Your task to perform on an android device: Add "energizer triple a" to the cart on target.com, then select checkout. Image 0: 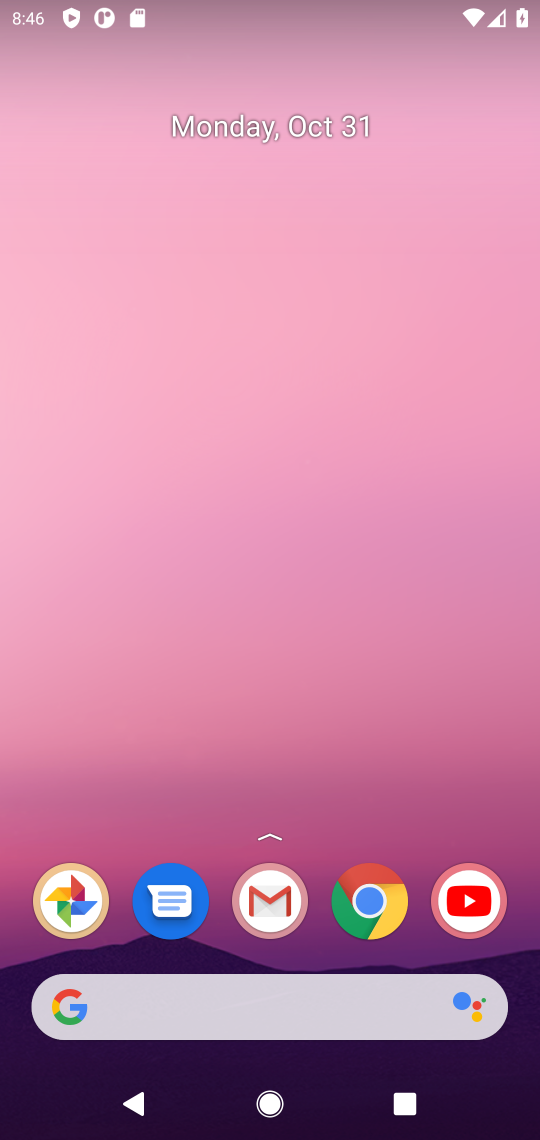
Step 0: drag from (318, 653) to (373, 18)
Your task to perform on an android device: Add "energizer triple a" to the cart on target.com, then select checkout. Image 1: 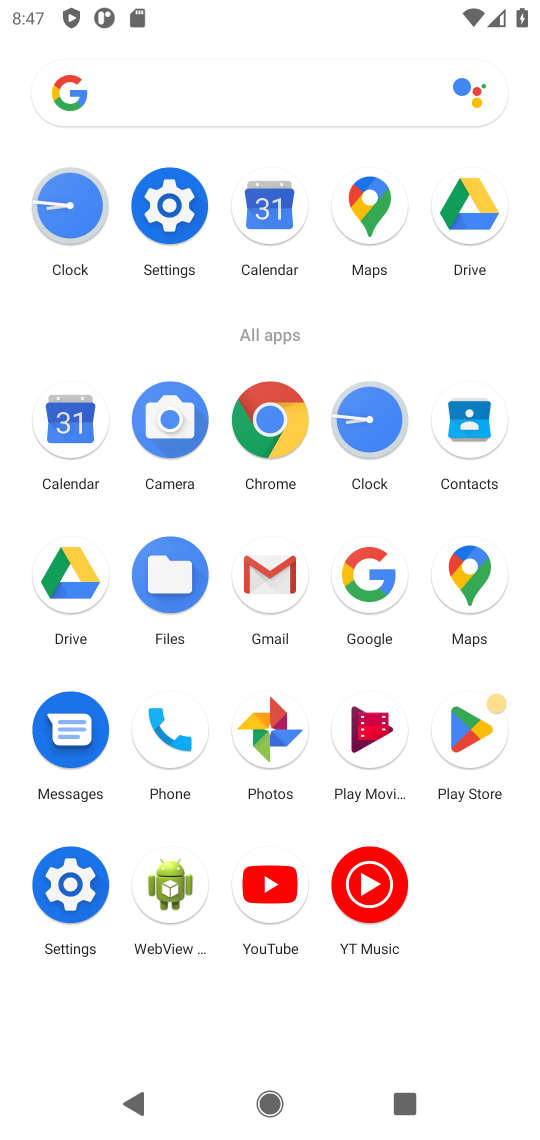
Step 1: click (367, 569)
Your task to perform on an android device: Add "energizer triple a" to the cart on target.com, then select checkout. Image 2: 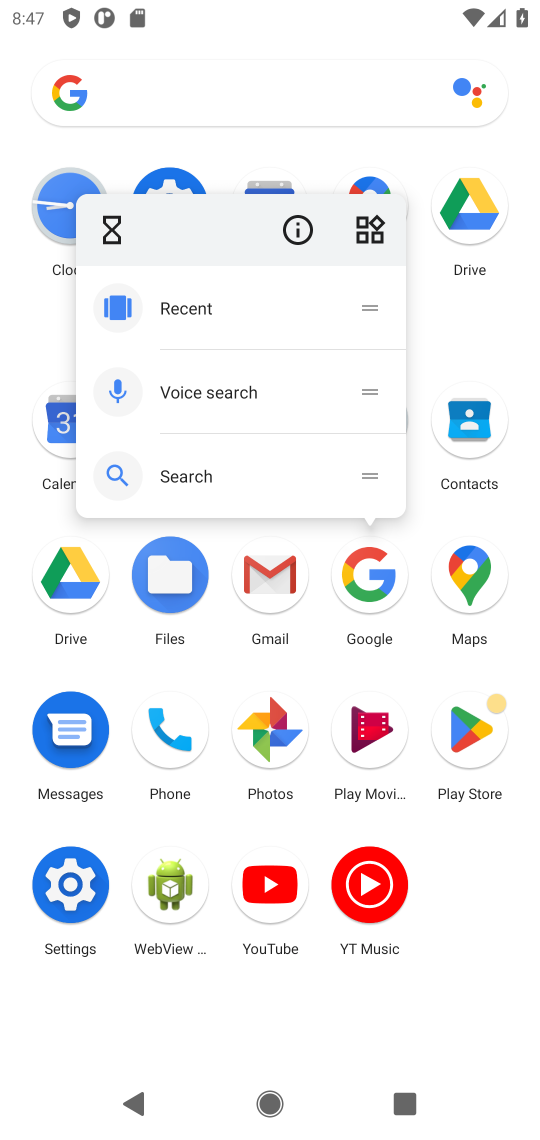
Step 2: click (359, 562)
Your task to perform on an android device: Add "energizer triple a" to the cart on target.com, then select checkout. Image 3: 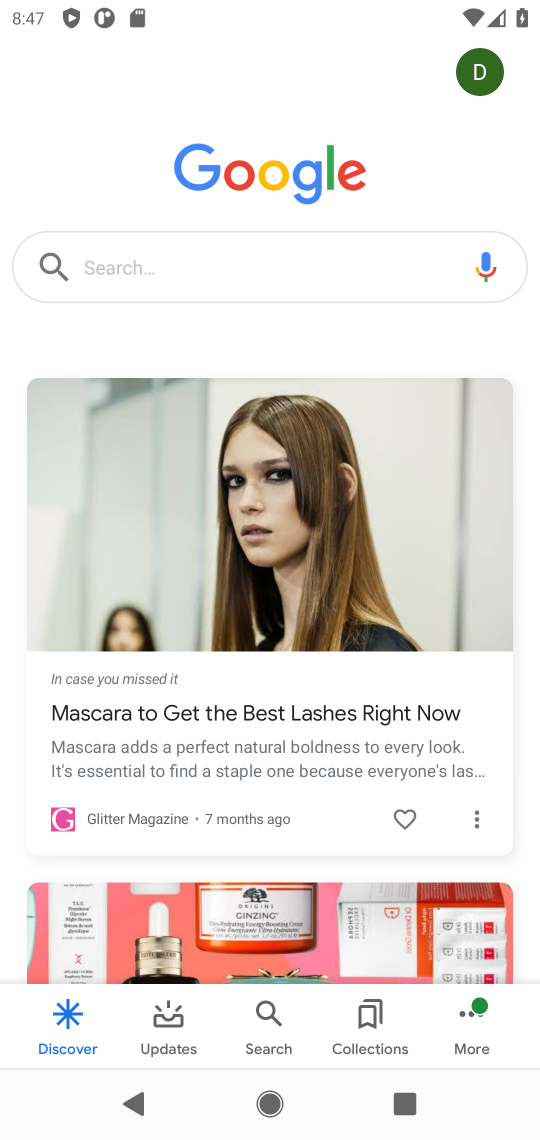
Step 3: click (268, 235)
Your task to perform on an android device: Add "energizer triple a" to the cart on target.com, then select checkout. Image 4: 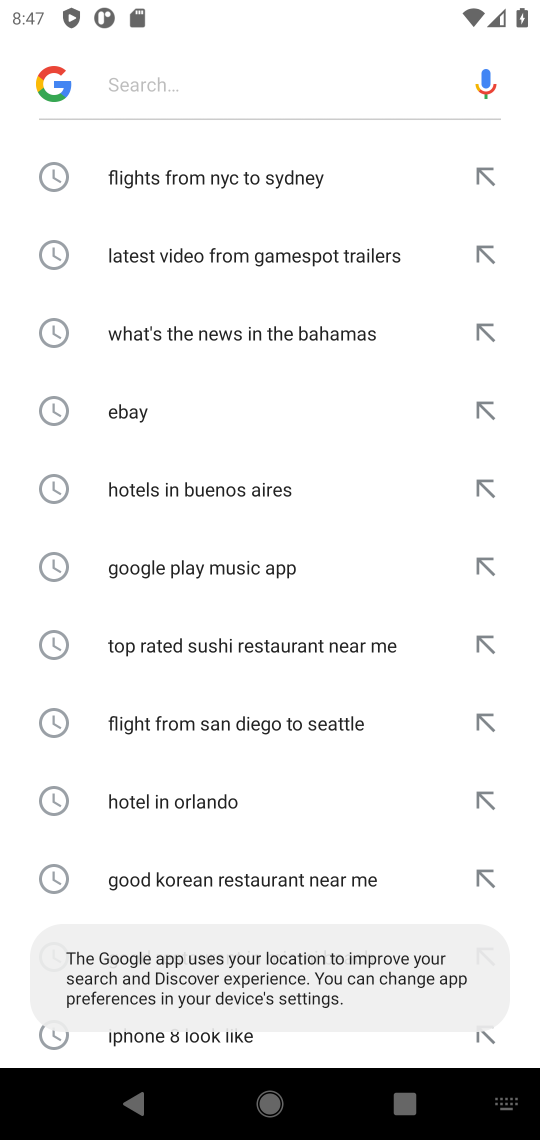
Step 4: type "target "
Your task to perform on an android device: Add "energizer triple a" to the cart on target.com, then select checkout. Image 5: 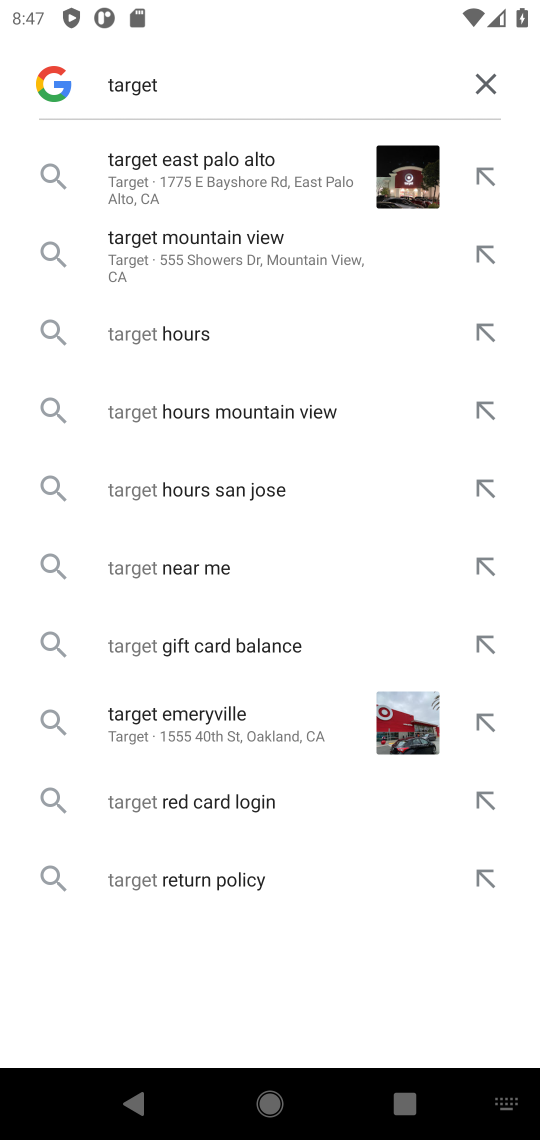
Step 5: click (215, 583)
Your task to perform on an android device: Add "energizer triple a" to the cart on target.com, then select checkout. Image 6: 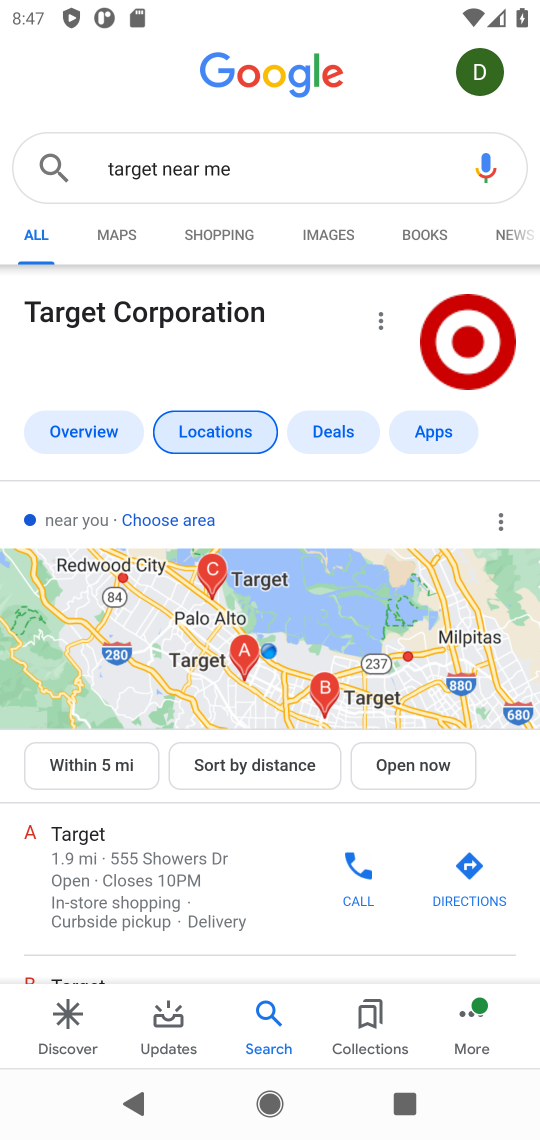
Step 6: drag from (184, 804) to (178, 511)
Your task to perform on an android device: Add "energizer triple a" to the cart on target.com, then select checkout. Image 7: 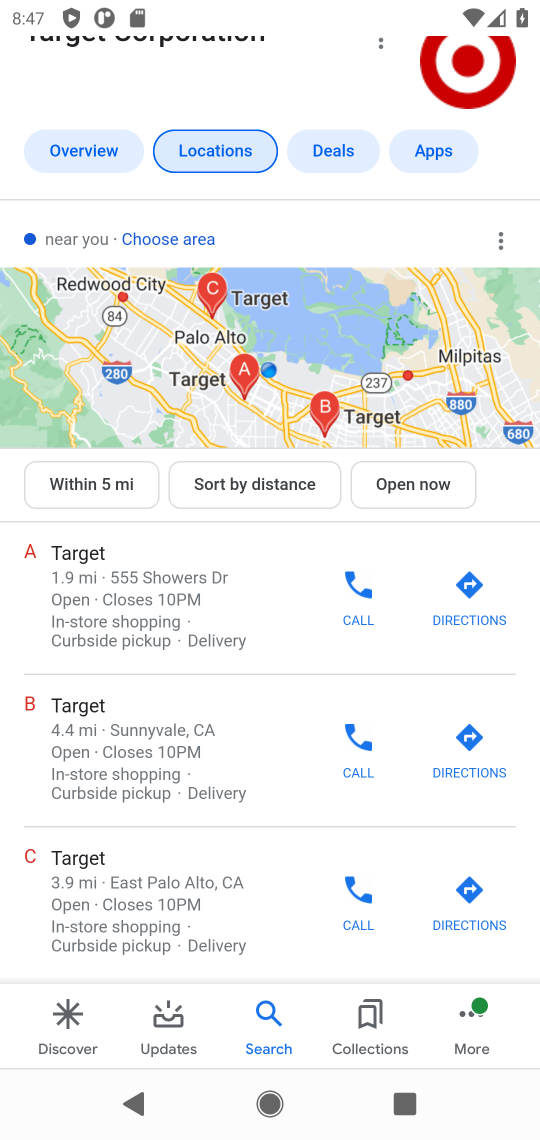
Step 7: drag from (212, 839) to (294, 146)
Your task to perform on an android device: Add "energizer triple a" to the cart on target.com, then select checkout. Image 8: 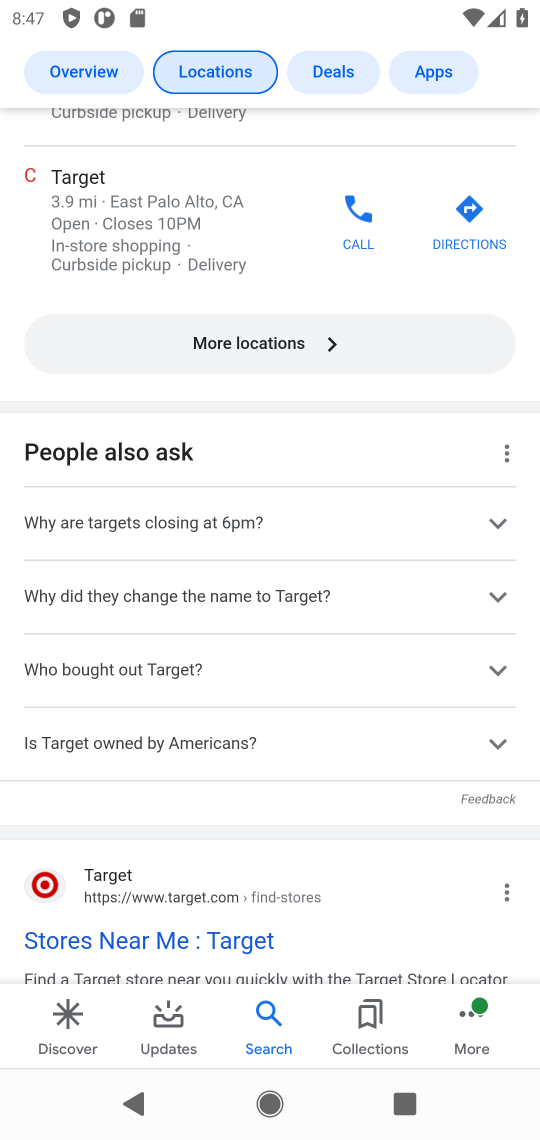
Step 8: drag from (110, 933) to (146, 770)
Your task to perform on an android device: Add "energizer triple a" to the cart on target.com, then select checkout. Image 9: 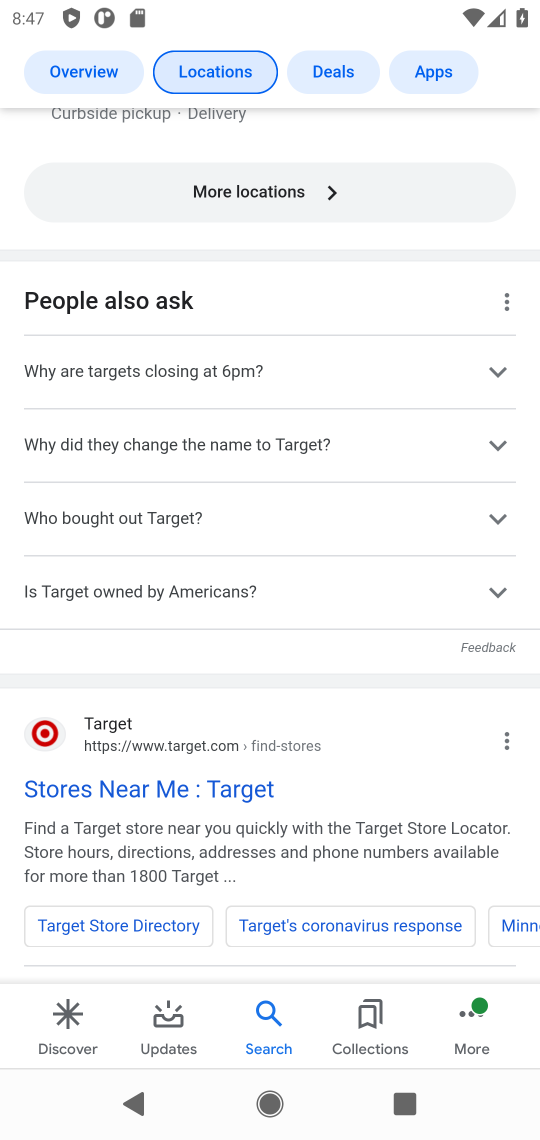
Step 9: click (37, 738)
Your task to perform on an android device: Add "energizer triple a" to the cart on target.com, then select checkout. Image 10: 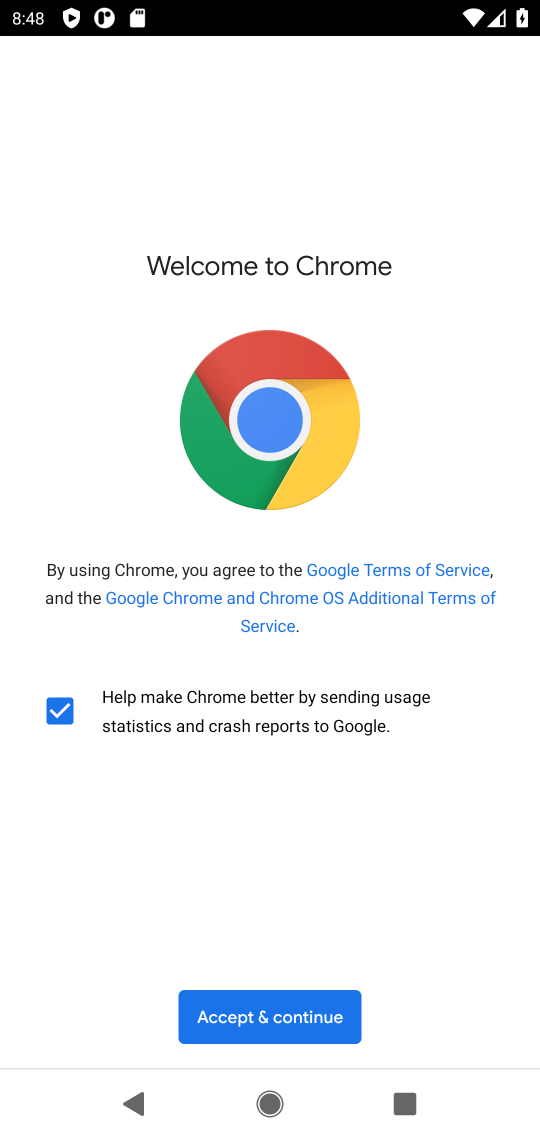
Step 10: click (295, 1029)
Your task to perform on an android device: Add "energizer triple a" to the cart on target.com, then select checkout. Image 11: 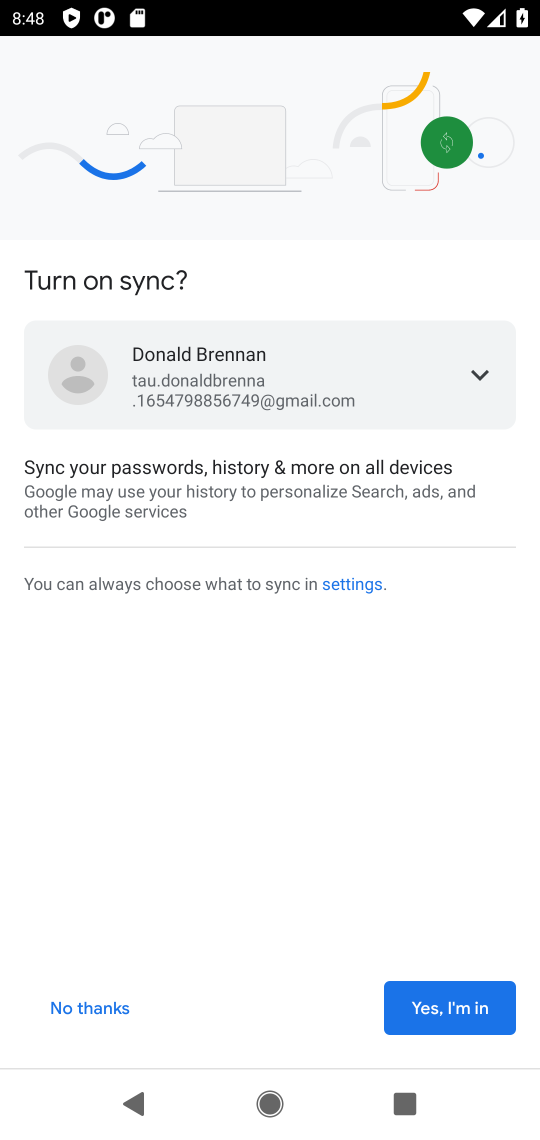
Step 11: click (73, 1005)
Your task to perform on an android device: Add "energizer triple a" to the cart on target.com, then select checkout. Image 12: 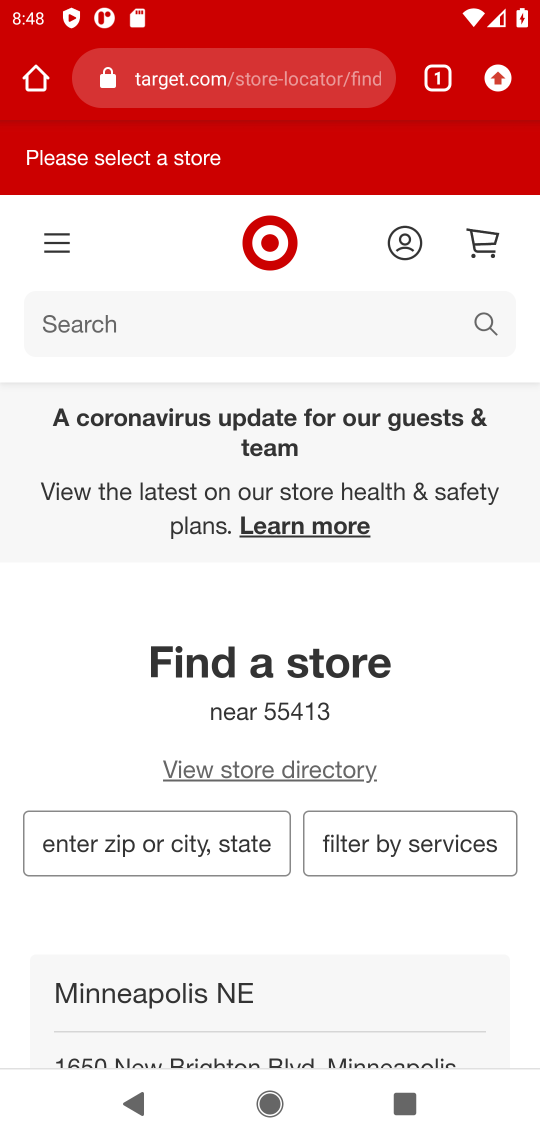
Step 12: click (157, 311)
Your task to perform on an android device: Add "energizer triple a" to the cart on target.com, then select checkout. Image 13: 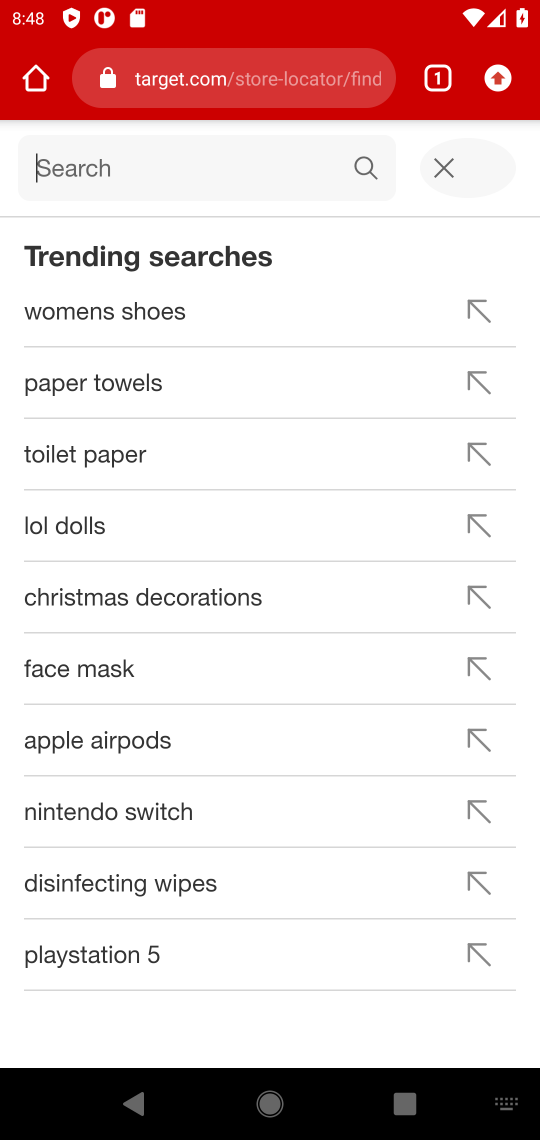
Step 13: type "energizer "
Your task to perform on an android device: Add "energizer triple a" to the cart on target.com, then select checkout. Image 14: 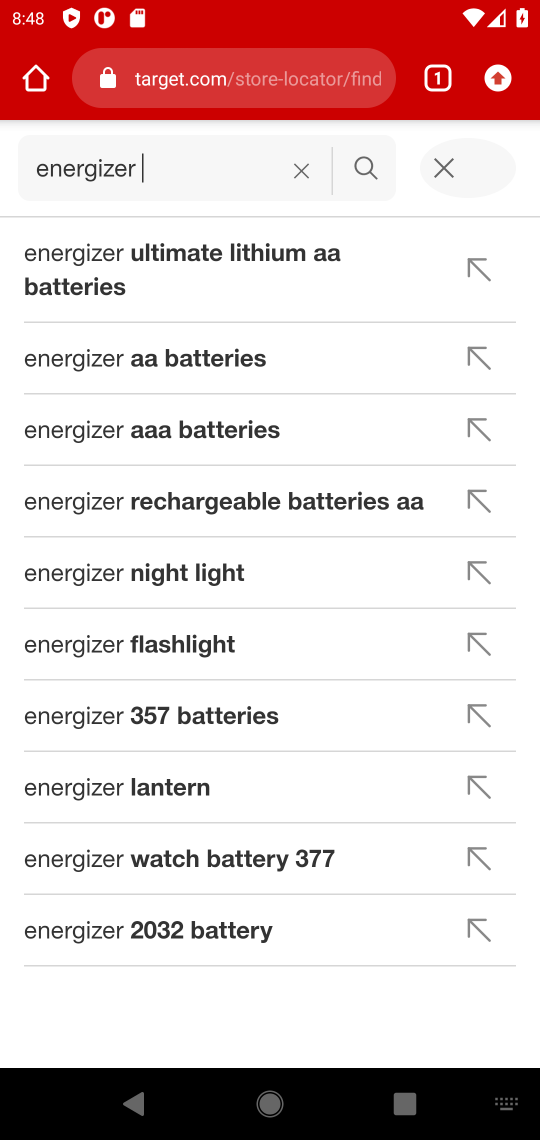
Step 14: click (177, 358)
Your task to perform on an android device: Add "energizer triple a" to the cart on target.com, then select checkout. Image 15: 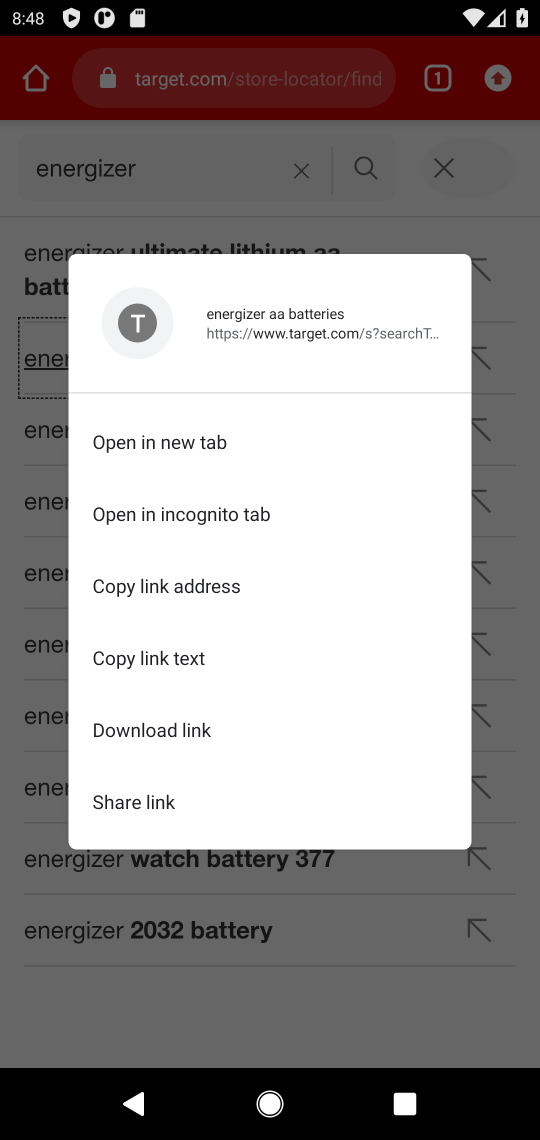
Step 15: click (39, 375)
Your task to perform on an android device: Add "energizer triple a" to the cart on target.com, then select checkout. Image 16: 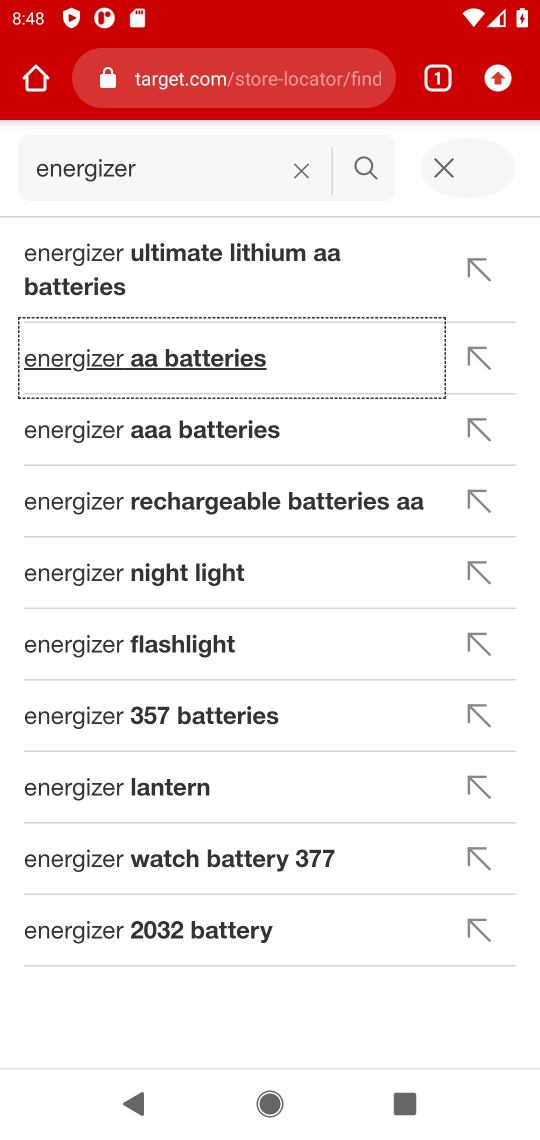
Step 16: click (112, 260)
Your task to perform on an android device: Add "energizer triple a" to the cart on target.com, then select checkout. Image 17: 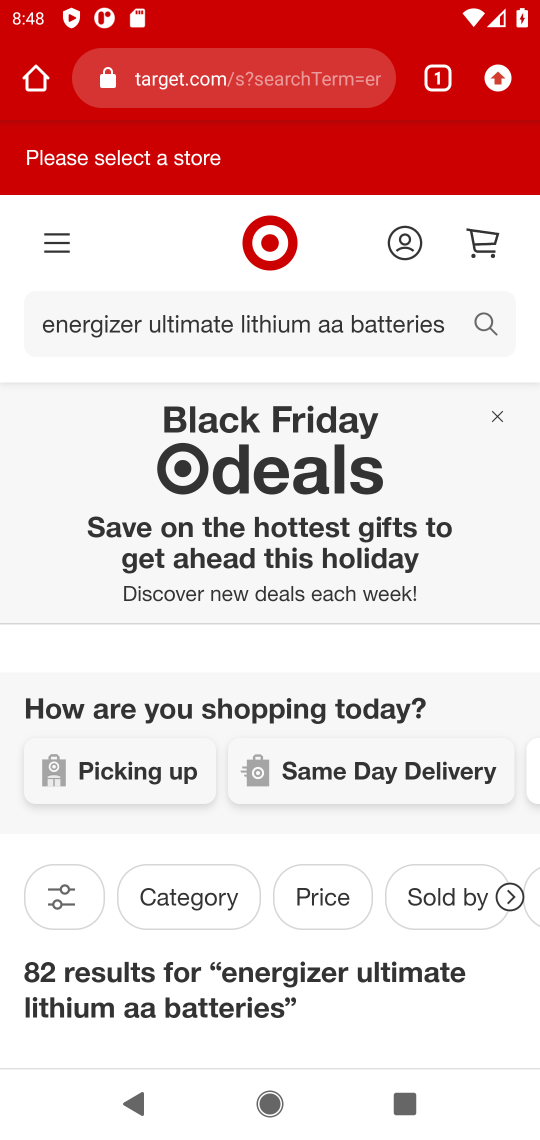
Step 17: drag from (196, 982) to (270, 234)
Your task to perform on an android device: Add "energizer triple a" to the cart on target.com, then select checkout. Image 18: 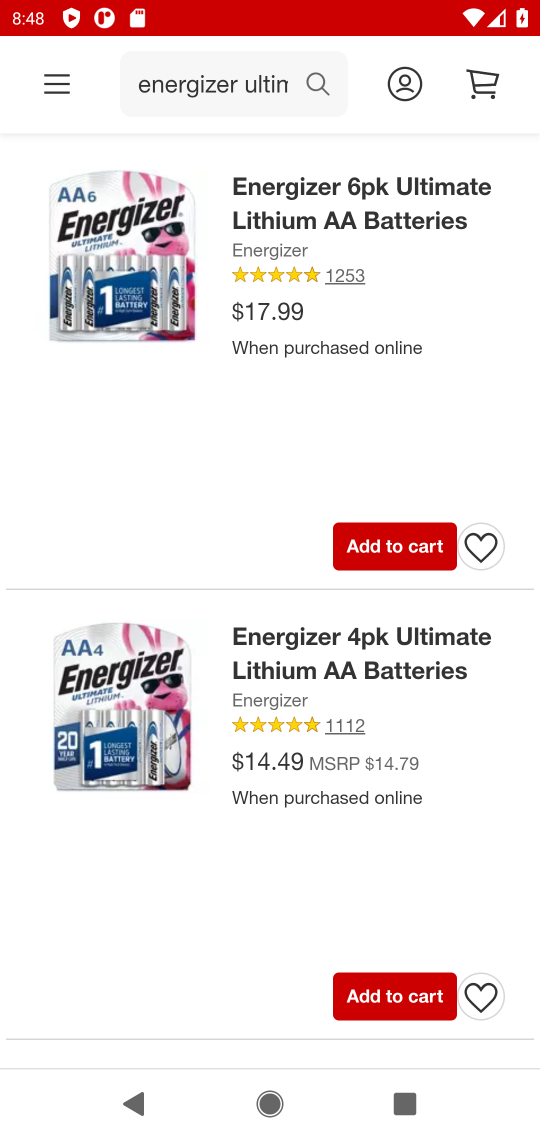
Step 18: click (372, 544)
Your task to perform on an android device: Add "energizer triple a" to the cart on target.com, then select checkout. Image 19: 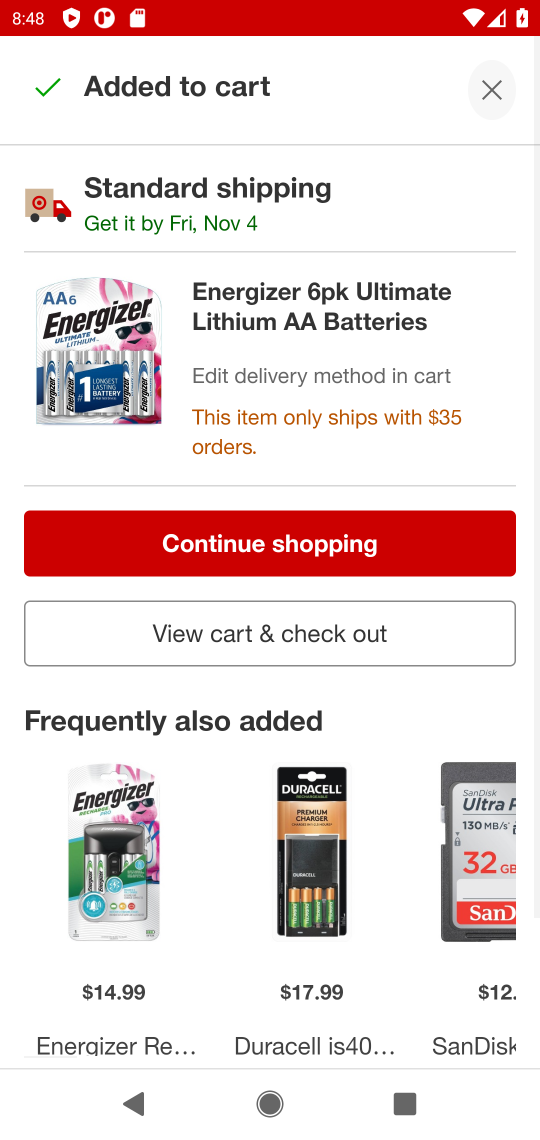
Step 19: task complete